Your task to perform on an android device: Open network settings Image 0: 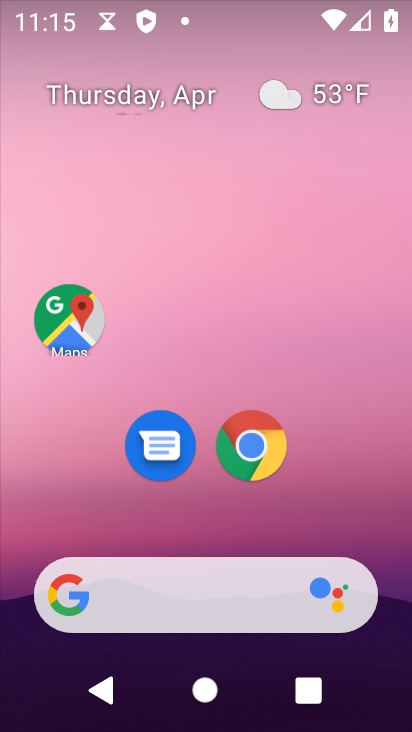
Step 0: drag from (191, 604) to (264, 79)
Your task to perform on an android device: Open network settings Image 1: 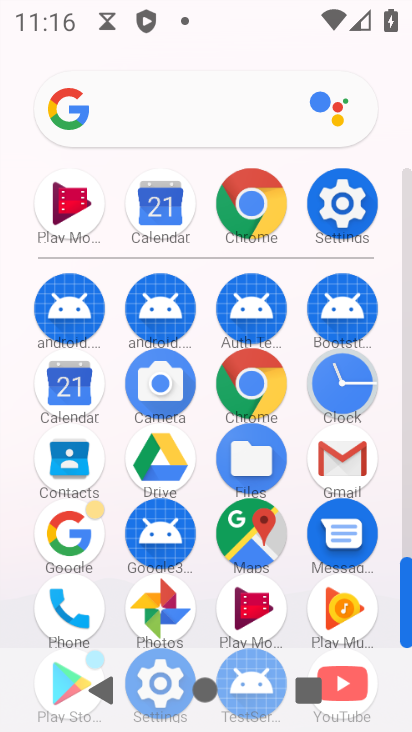
Step 1: click (344, 215)
Your task to perform on an android device: Open network settings Image 2: 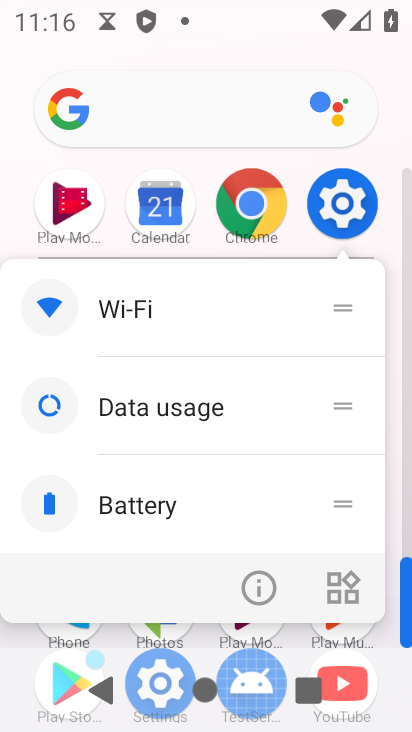
Step 2: click (351, 217)
Your task to perform on an android device: Open network settings Image 3: 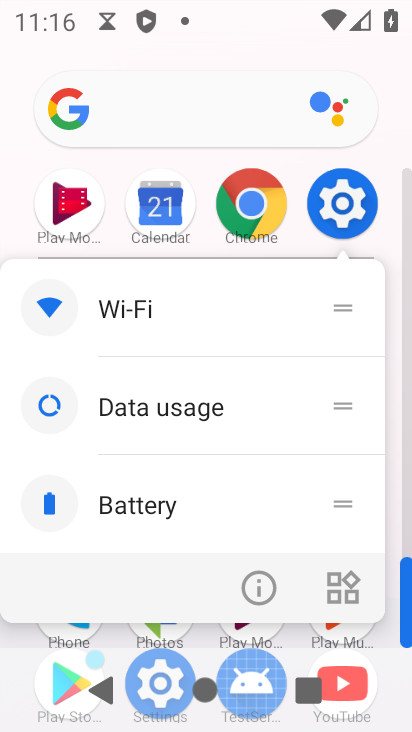
Step 3: click (344, 208)
Your task to perform on an android device: Open network settings Image 4: 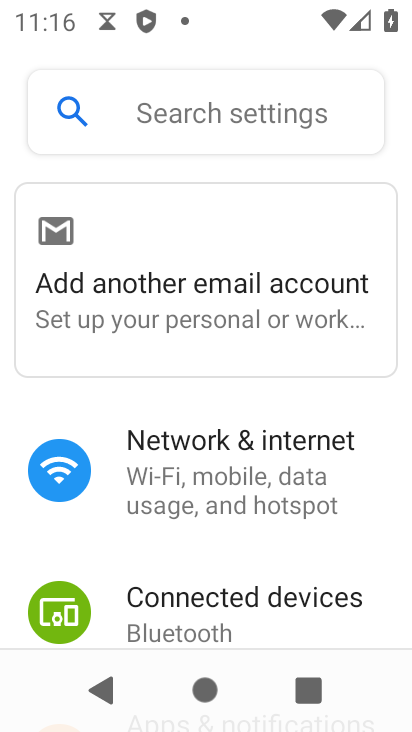
Step 4: click (231, 474)
Your task to perform on an android device: Open network settings Image 5: 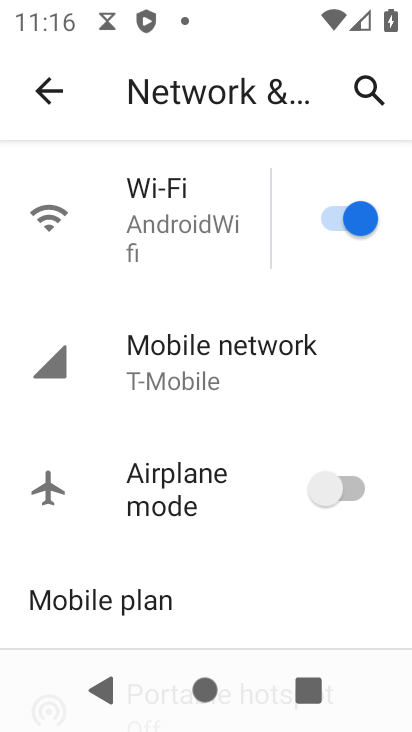
Step 5: task complete